Your task to perform on an android device: When is my next meeting? Image 0: 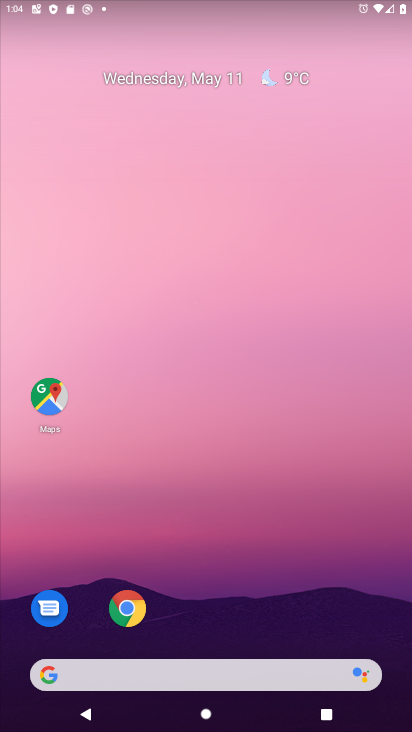
Step 0: drag from (197, 618) to (133, 286)
Your task to perform on an android device: When is my next meeting? Image 1: 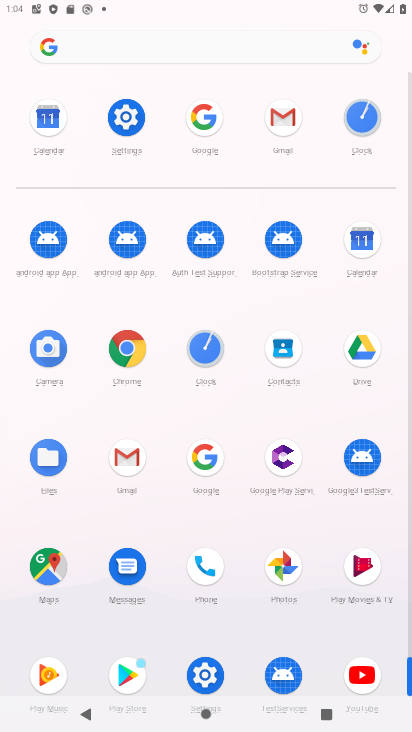
Step 1: click (377, 249)
Your task to perform on an android device: When is my next meeting? Image 2: 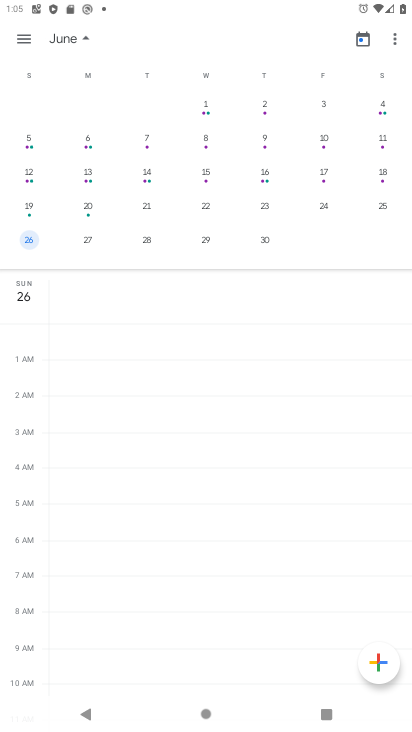
Step 2: drag from (127, 145) to (400, 73)
Your task to perform on an android device: When is my next meeting? Image 3: 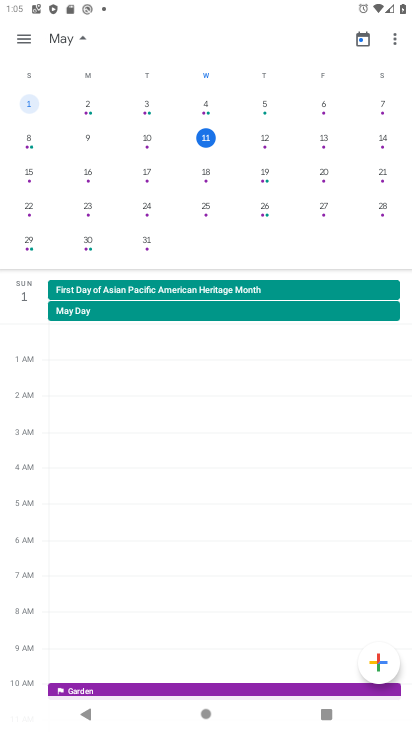
Step 3: click (22, 37)
Your task to perform on an android device: When is my next meeting? Image 4: 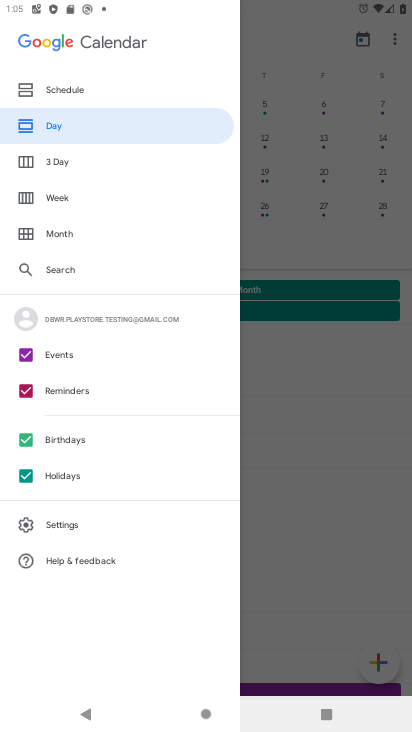
Step 4: click (30, 475)
Your task to perform on an android device: When is my next meeting? Image 5: 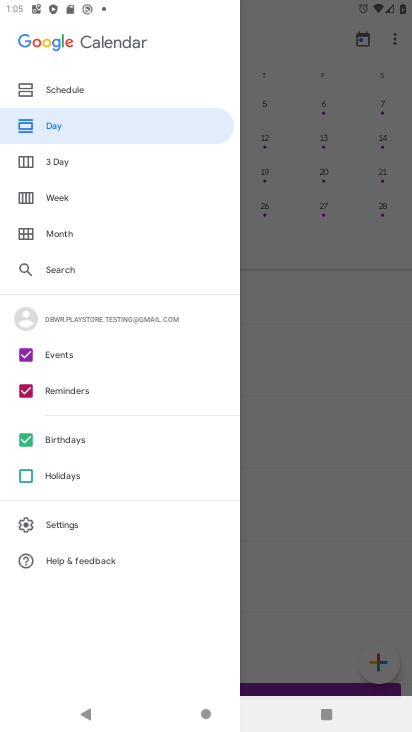
Step 5: click (27, 432)
Your task to perform on an android device: When is my next meeting? Image 6: 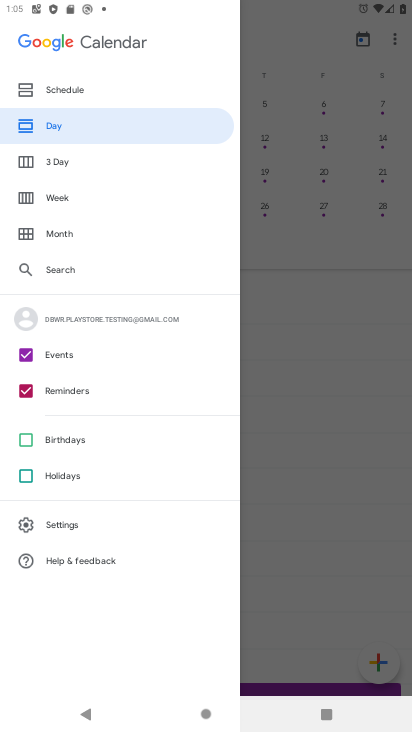
Step 6: click (245, 288)
Your task to perform on an android device: When is my next meeting? Image 7: 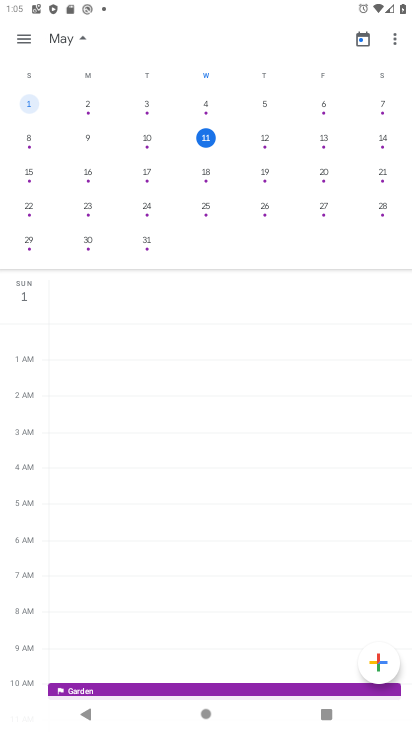
Step 7: click (25, 44)
Your task to perform on an android device: When is my next meeting? Image 8: 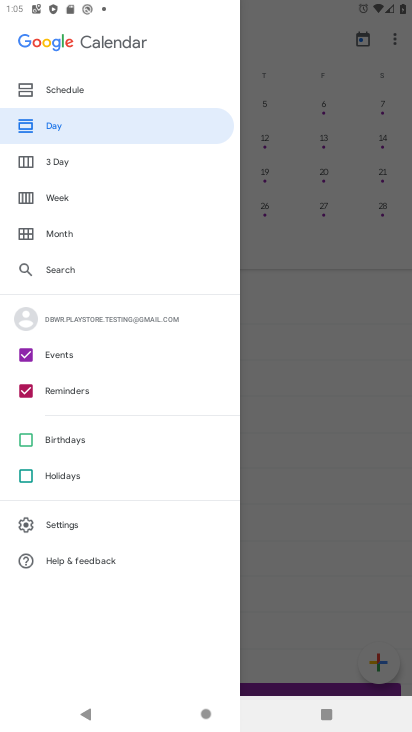
Step 8: click (84, 81)
Your task to perform on an android device: When is my next meeting? Image 9: 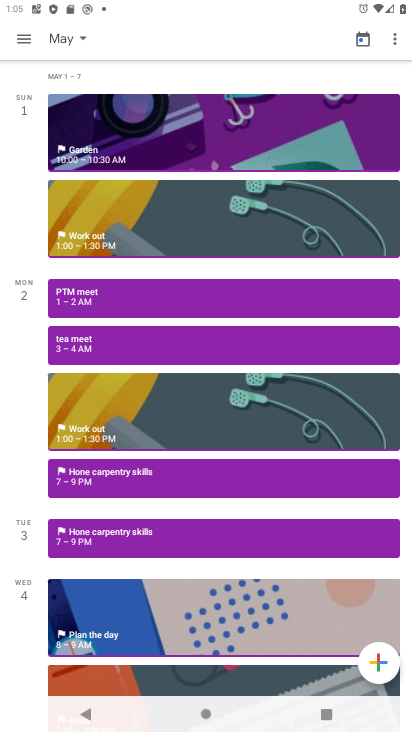
Step 9: click (68, 46)
Your task to perform on an android device: When is my next meeting? Image 10: 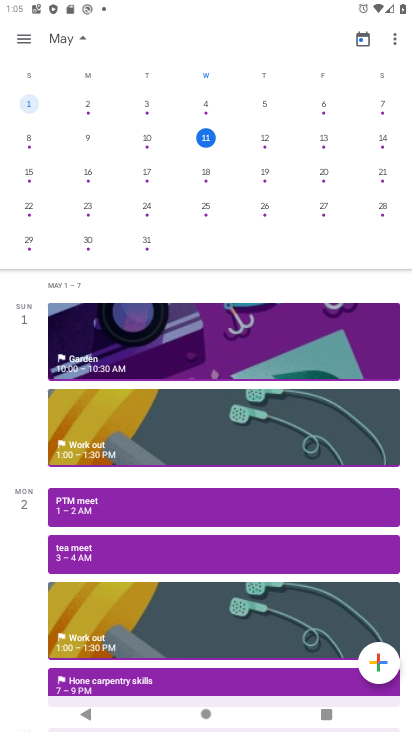
Step 10: click (201, 142)
Your task to perform on an android device: When is my next meeting? Image 11: 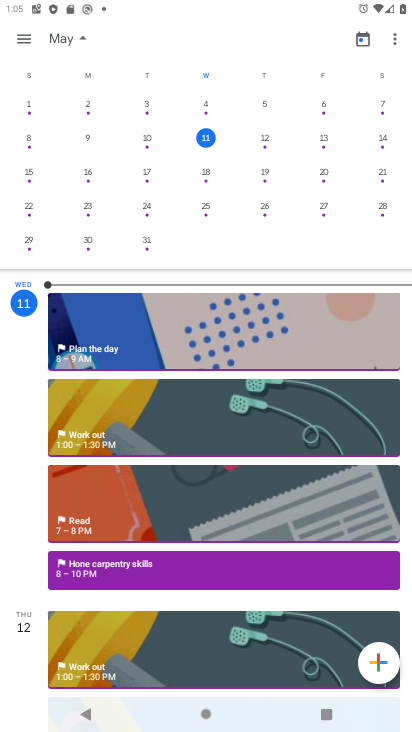
Step 11: task complete